Your task to perform on an android device: open chrome and create a bookmark for the current page Image 0: 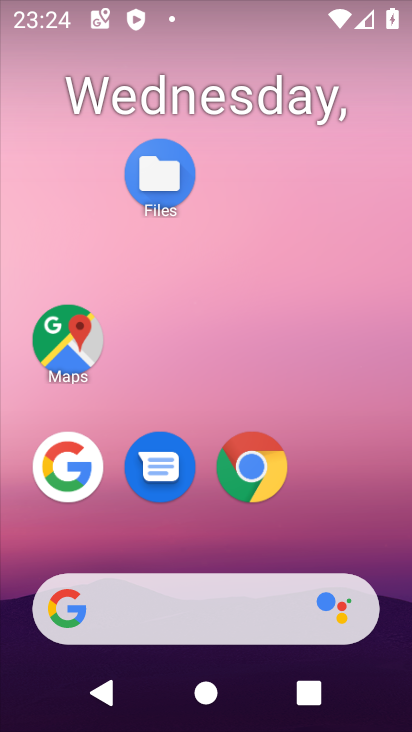
Step 0: click (239, 481)
Your task to perform on an android device: open chrome and create a bookmark for the current page Image 1: 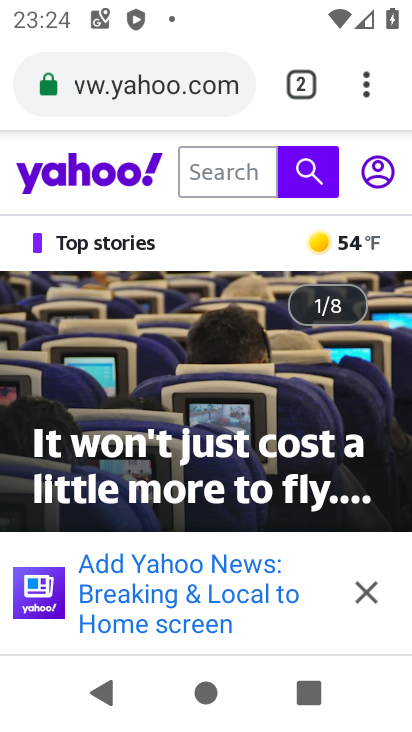
Step 1: click (366, 91)
Your task to perform on an android device: open chrome and create a bookmark for the current page Image 2: 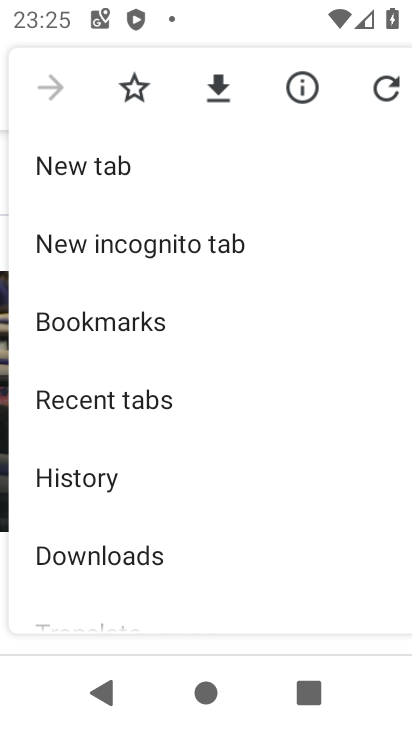
Step 2: click (118, 332)
Your task to perform on an android device: open chrome and create a bookmark for the current page Image 3: 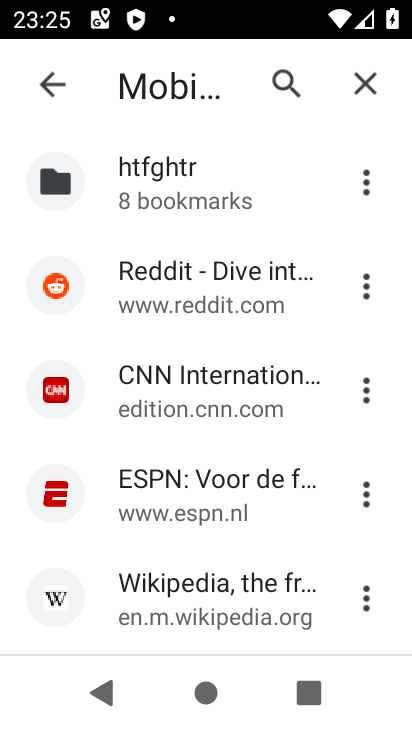
Step 3: click (56, 98)
Your task to perform on an android device: open chrome and create a bookmark for the current page Image 4: 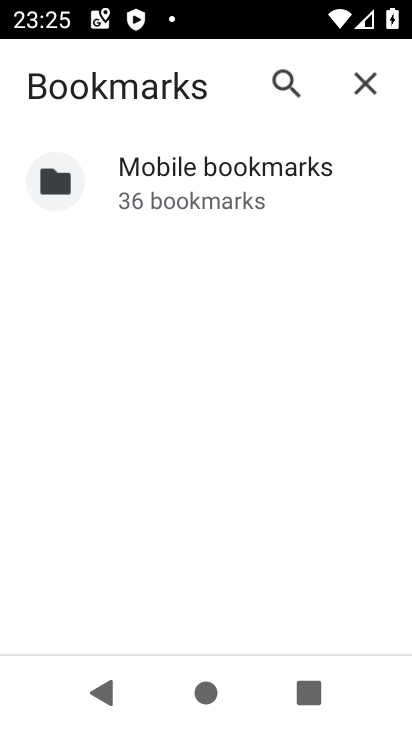
Step 4: task complete